Your task to perform on an android device: empty trash in the gmail app Image 0: 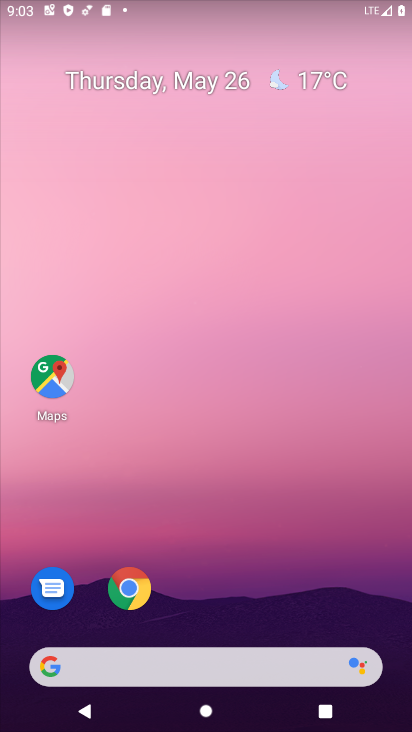
Step 0: drag from (371, 609) to (318, 253)
Your task to perform on an android device: empty trash in the gmail app Image 1: 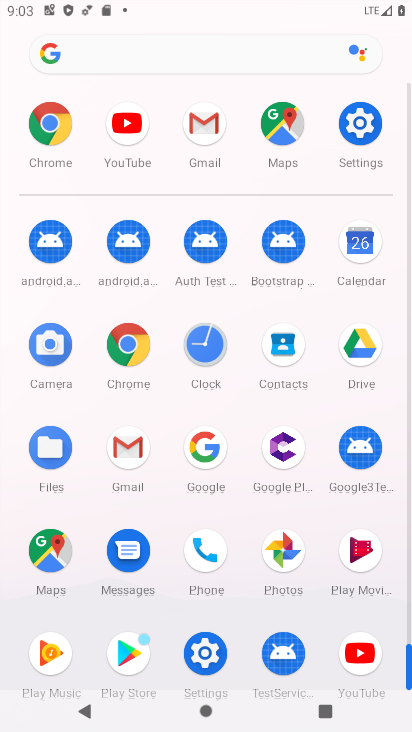
Step 1: click (123, 447)
Your task to perform on an android device: empty trash in the gmail app Image 2: 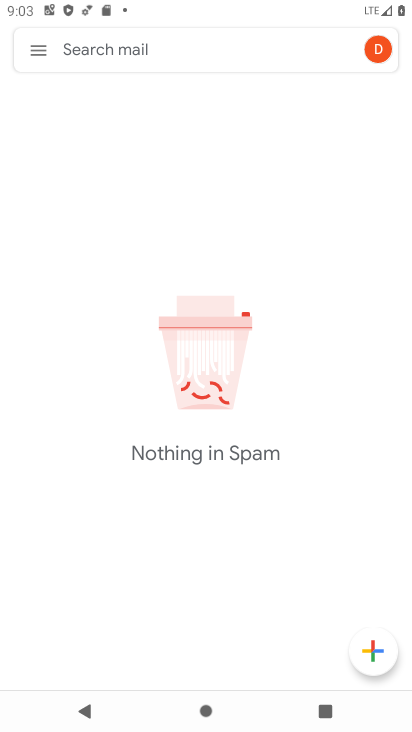
Step 2: click (32, 54)
Your task to perform on an android device: empty trash in the gmail app Image 3: 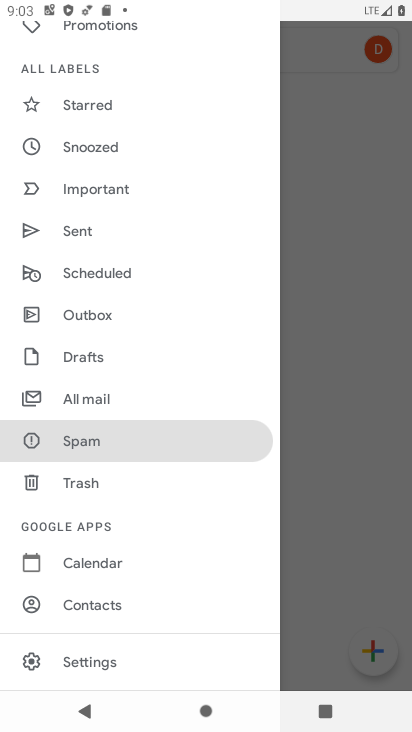
Step 3: click (92, 488)
Your task to perform on an android device: empty trash in the gmail app Image 4: 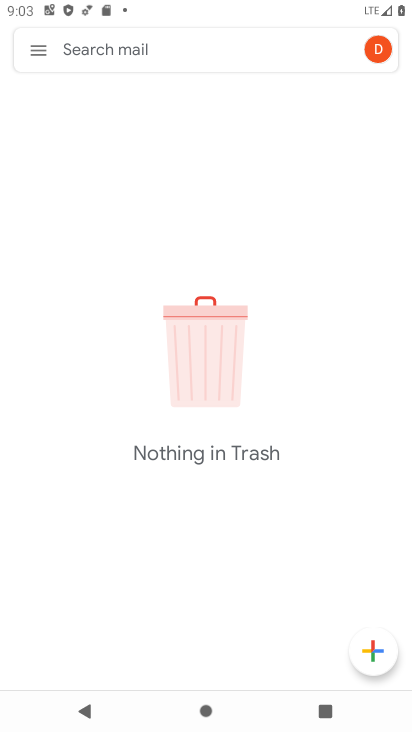
Step 4: task complete